Your task to perform on an android device: turn on the 12-hour format for clock Image 0: 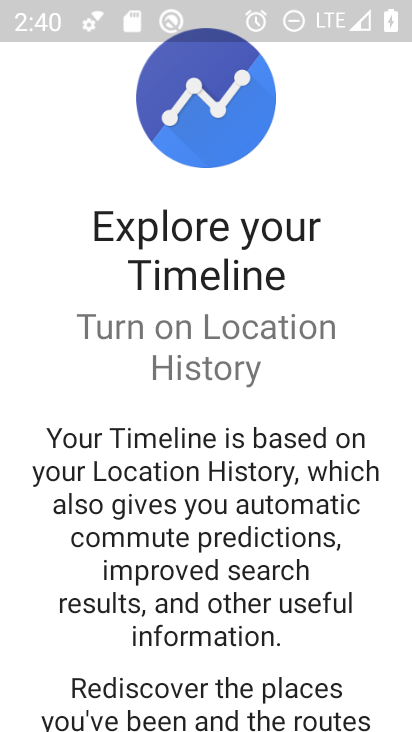
Step 0: press home button
Your task to perform on an android device: turn on the 12-hour format for clock Image 1: 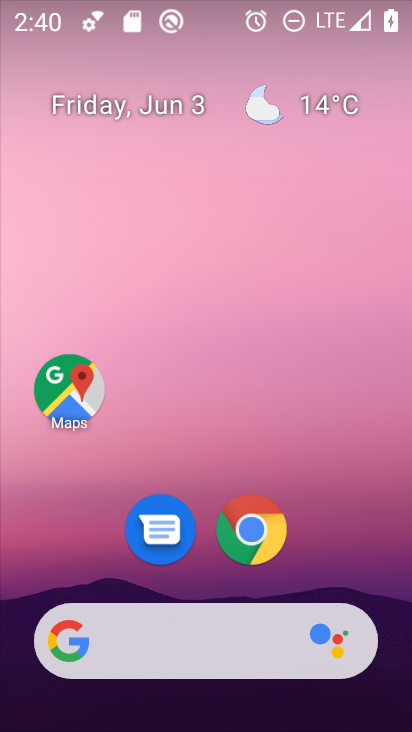
Step 1: drag from (378, 560) to (382, 295)
Your task to perform on an android device: turn on the 12-hour format for clock Image 2: 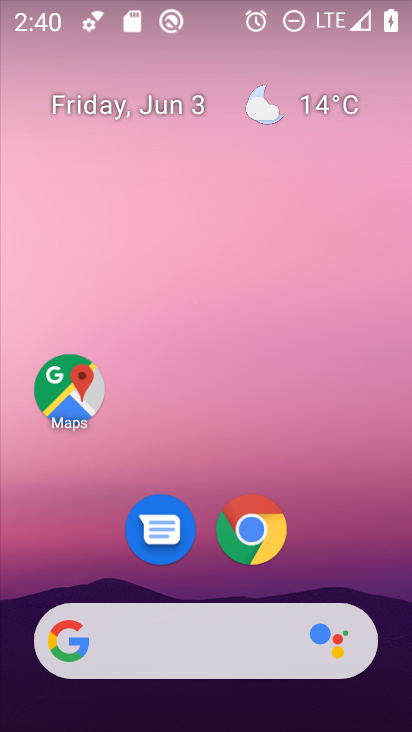
Step 2: drag from (378, 576) to (393, 193)
Your task to perform on an android device: turn on the 12-hour format for clock Image 3: 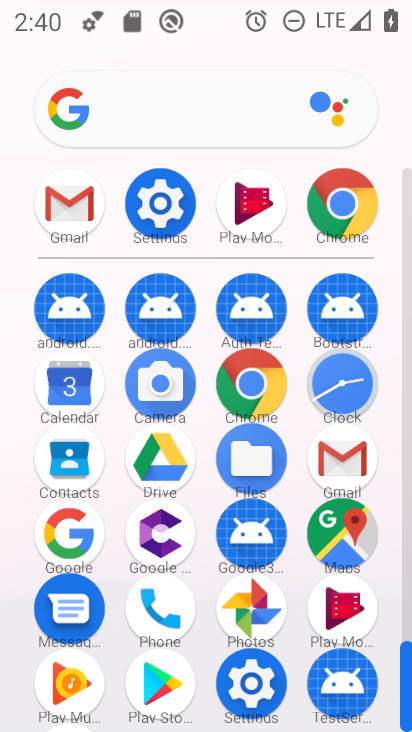
Step 3: click (350, 394)
Your task to perform on an android device: turn on the 12-hour format for clock Image 4: 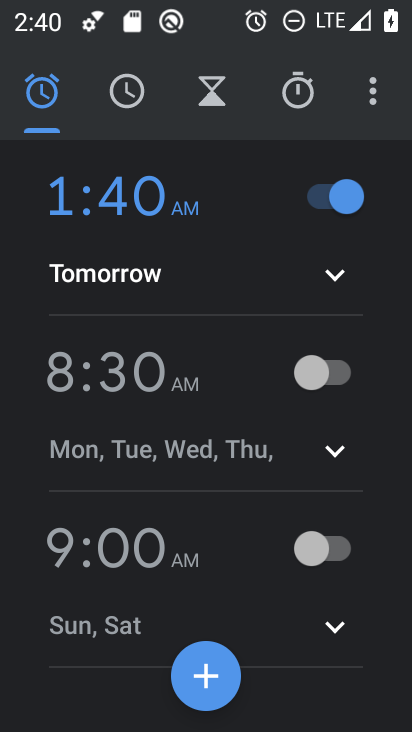
Step 4: click (372, 98)
Your task to perform on an android device: turn on the 12-hour format for clock Image 5: 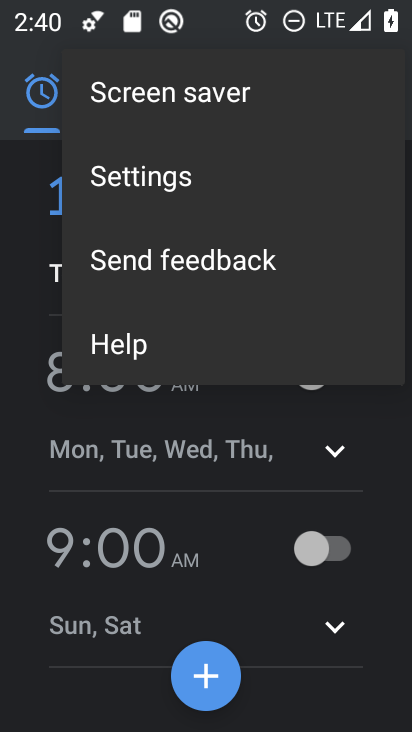
Step 5: click (260, 182)
Your task to perform on an android device: turn on the 12-hour format for clock Image 6: 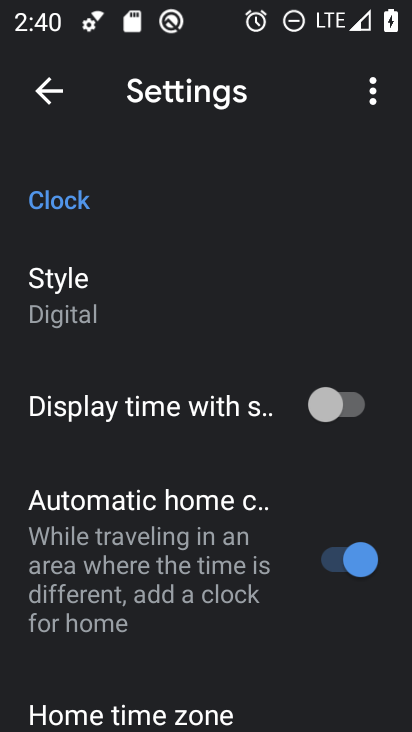
Step 6: drag from (264, 464) to (281, 385)
Your task to perform on an android device: turn on the 12-hour format for clock Image 7: 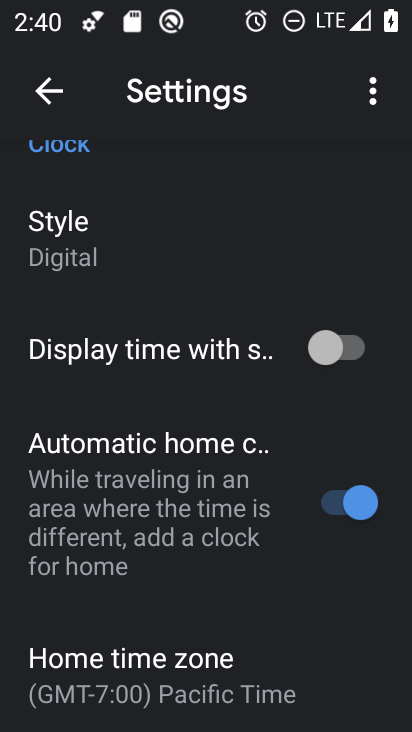
Step 7: drag from (276, 496) to (281, 400)
Your task to perform on an android device: turn on the 12-hour format for clock Image 8: 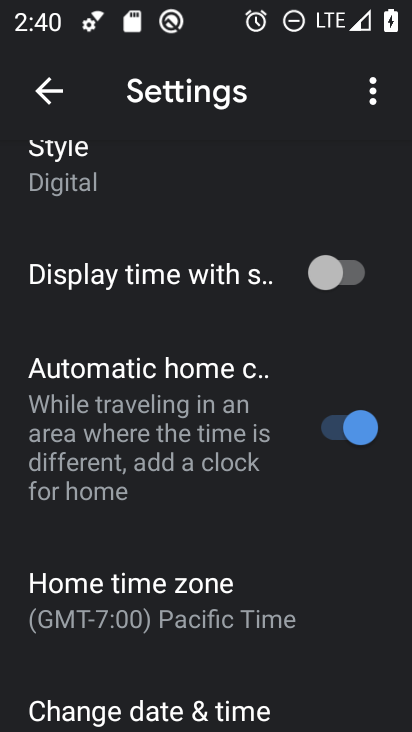
Step 8: drag from (299, 486) to (301, 406)
Your task to perform on an android device: turn on the 12-hour format for clock Image 9: 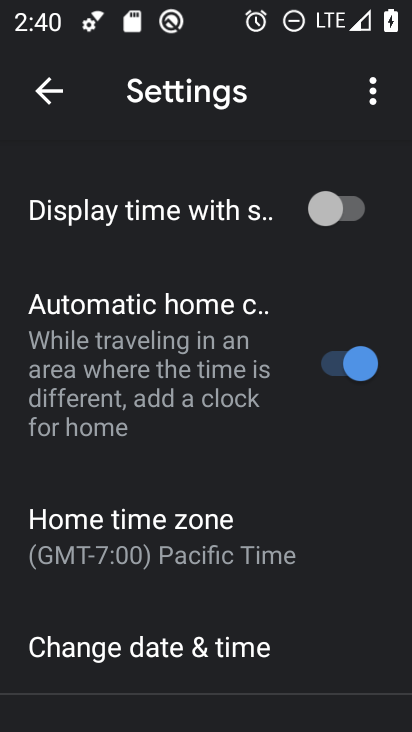
Step 9: drag from (312, 504) to (324, 396)
Your task to perform on an android device: turn on the 12-hour format for clock Image 10: 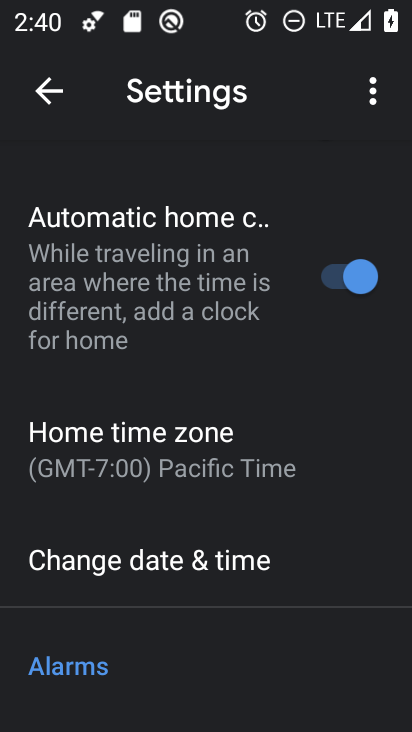
Step 10: drag from (334, 528) to (325, 422)
Your task to perform on an android device: turn on the 12-hour format for clock Image 11: 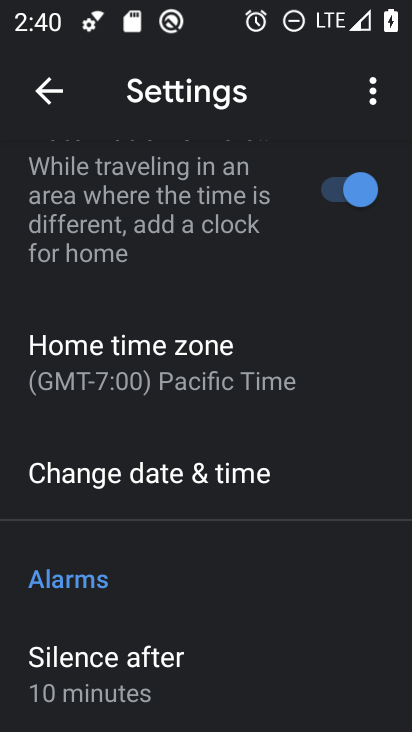
Step 11: drag from (316, 520) to (314, 422)
Your task to perform on an android device: turn on the 12-hour format for clock Image 12: 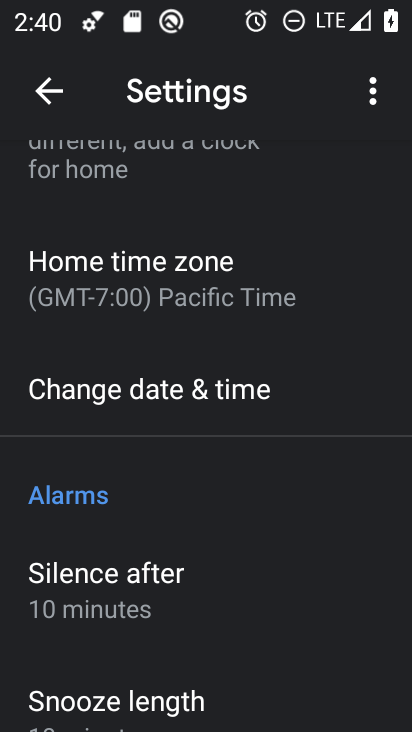
Step 12: click (266, 406)
Your task to perform on an android device: turn on the 12-hour format for clock Image 13: 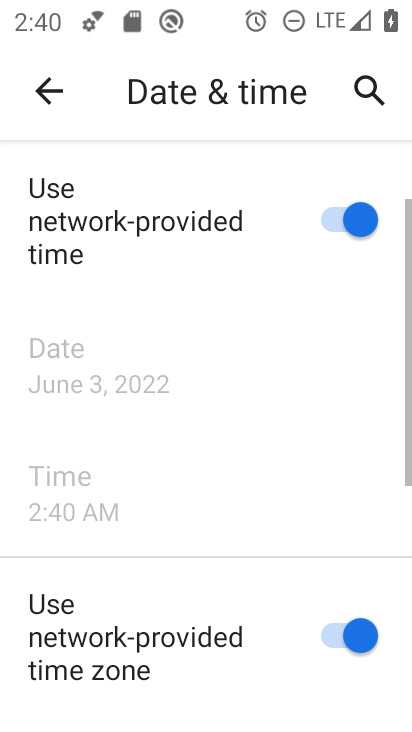
Step 13: task complete